Your task to perform on an android device: What's on my calendar tomorrow? Image 0: 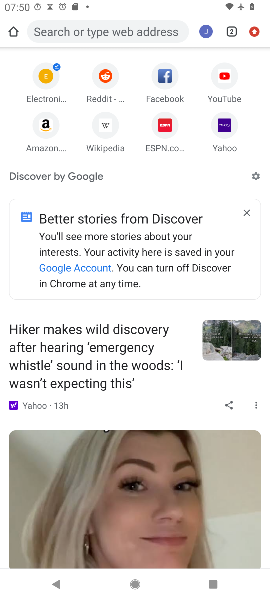
Step 0: press home button
Your task to perform on an android device: What's on my calendar tomorrow? Image 1: 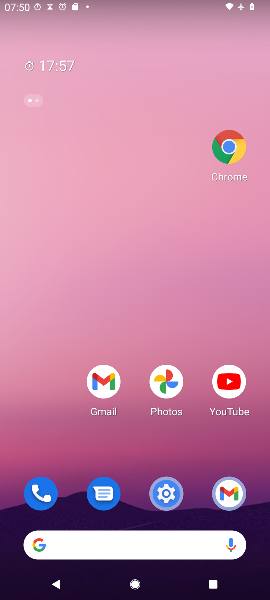
Step 1: press home button
Your task to perform on an android device: What's on my calendar tomorrow? Image 2: 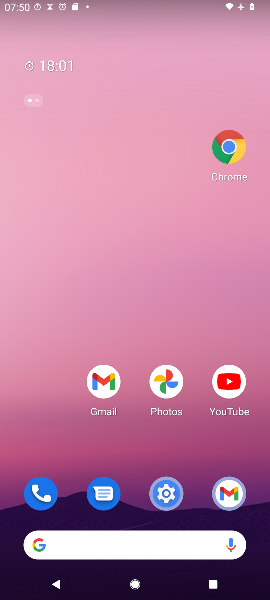
Step 2: drag from (66, 451) to (80, 116)
Your task to perform on an android device: What's on my calendar tomorrow? Image 3: 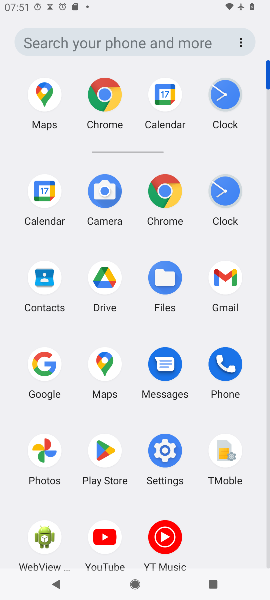
Step 3: click (51, 189)
Your task to perform on an android device: What's on my calendar tomorrow? Image 4: 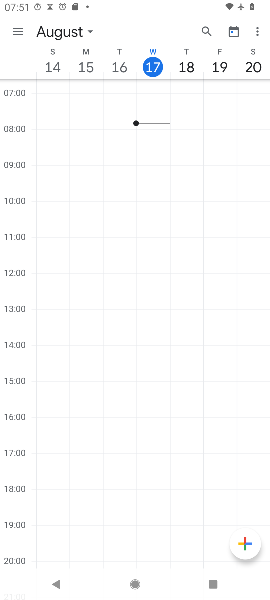
Step 4: click (182, 65)
Your task to perform on an android device: What's on my calendar tomorrow? Image 5: 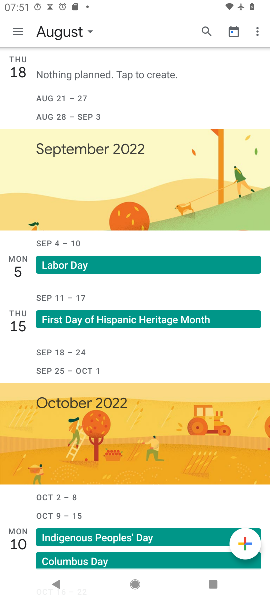
Step 5: task complete